Your task to perform on an android device: open device folders in google photos Image 0: 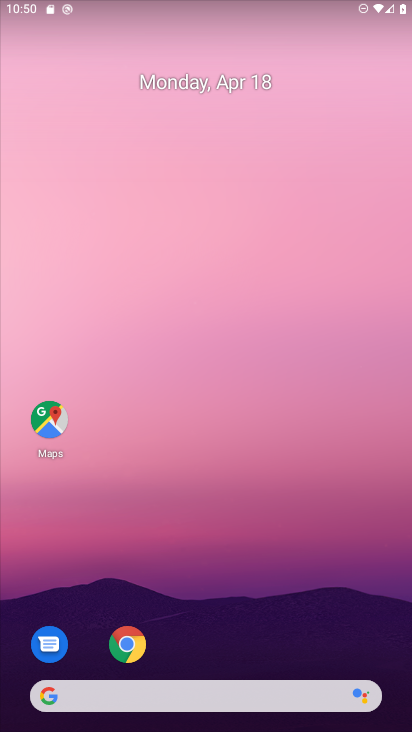
Step 0: drag from (197, 388) to (271, 32)
Your task to perform on an android device: open device folders in google photos Image 1: 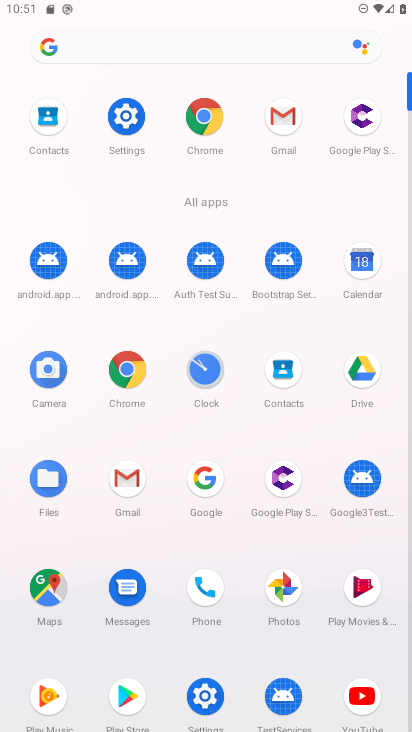
Step 1: click (268, 579)
Your task to perform on an android device: open device folders in google photos Image 2: 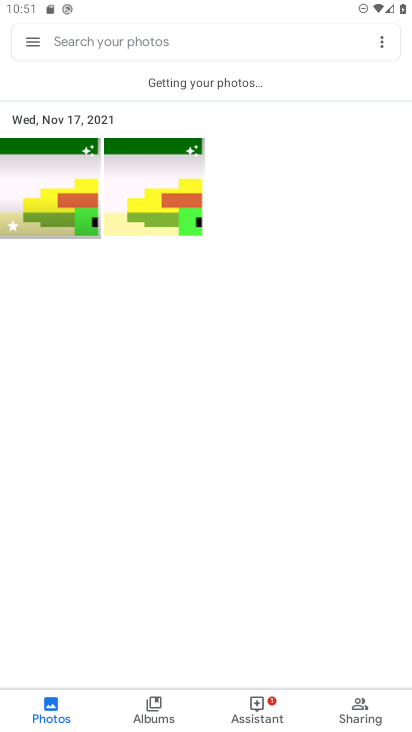
Step 2: click (36, 42)
Your task to perform on an android device: open device folders in google photos Image 3: 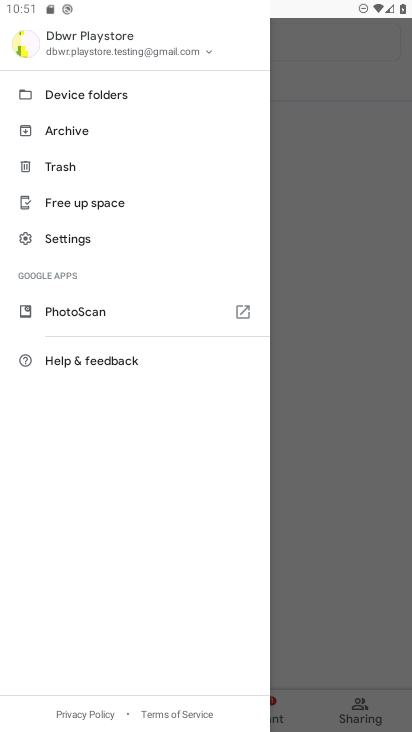
Step 3: click (61, 85)
Your task to perform on an android device: open device folders in google photos Image 4: 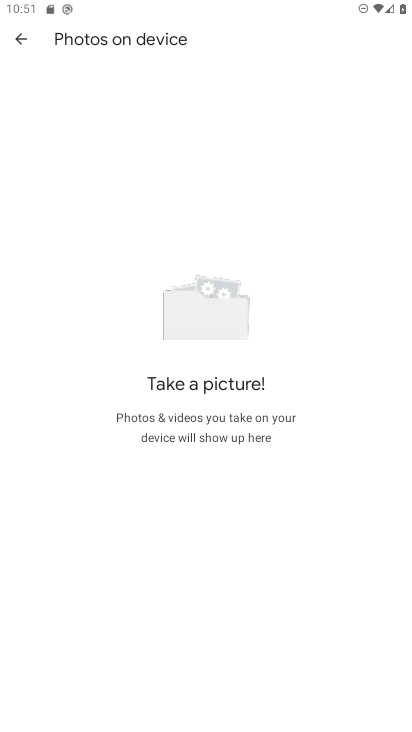
Step 4: task complete